Your task to perform on an android device: turn off smart reply in the gmail app Image 0: 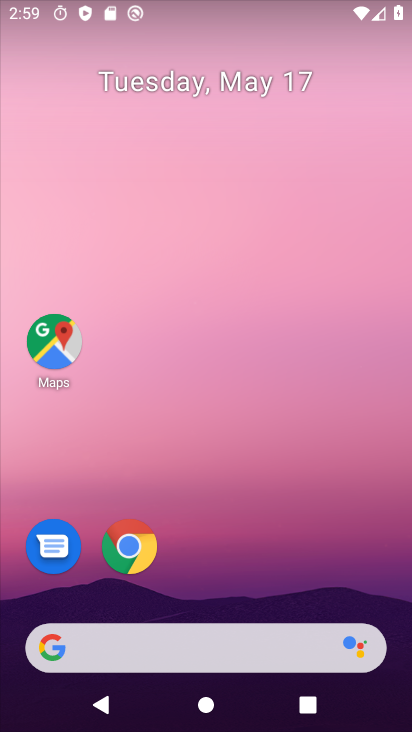
Step 0: drag from (212, 604) to (253, 101)
Your task to perform on an android device: turn off smart reply in the gmail app Image 1: 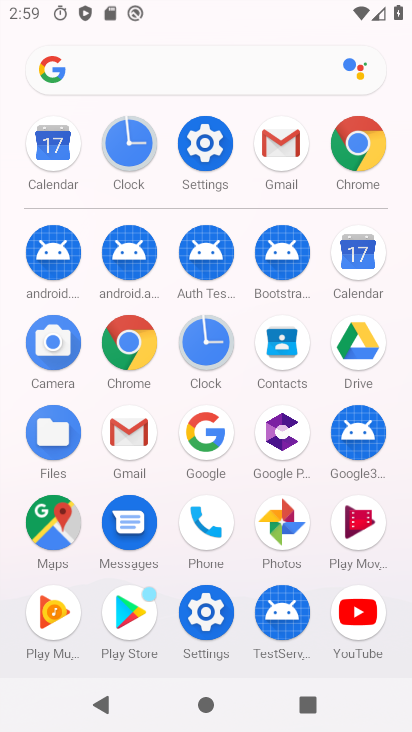
Step 1: click (120, 446)
Your task to perform on an android device: turn off smart reply in the gmail app Image 2: 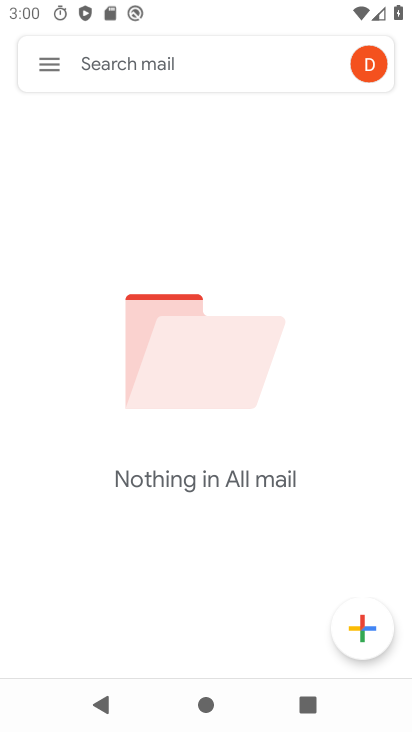
Step 2: click (39, 63)
Your task to perform on an android device: turn off smart reply in the gmail app Image 3: 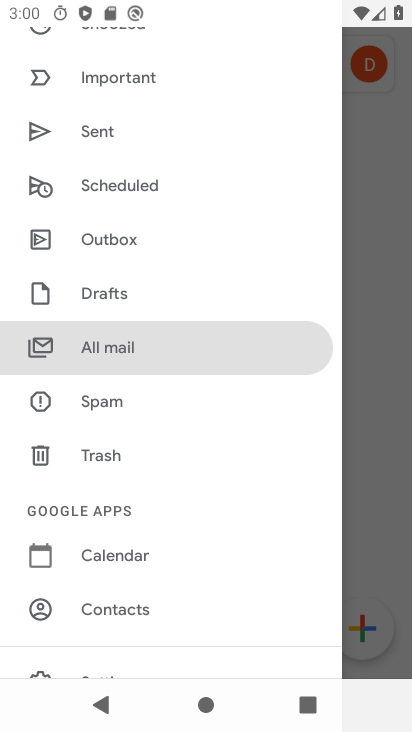
Step 3: drag from (101, 542) to (169, 251)
Your task to perform on an android device: turn off smart reply in the gmail app Image 4: 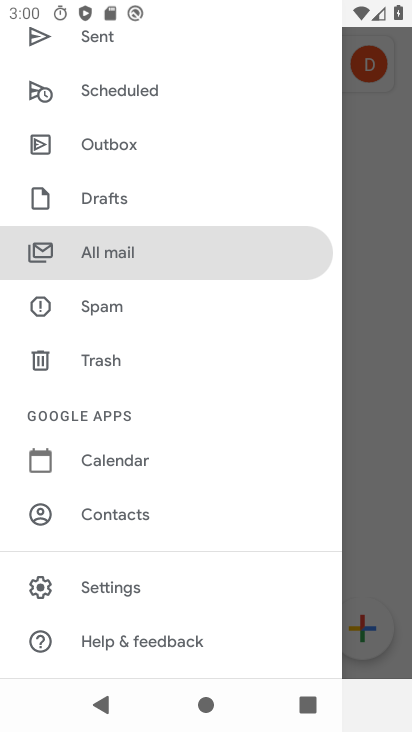
Step 4: click (122, 597)
Your task to perform on an android device: turn off smart reply in the gmail app Image 5: 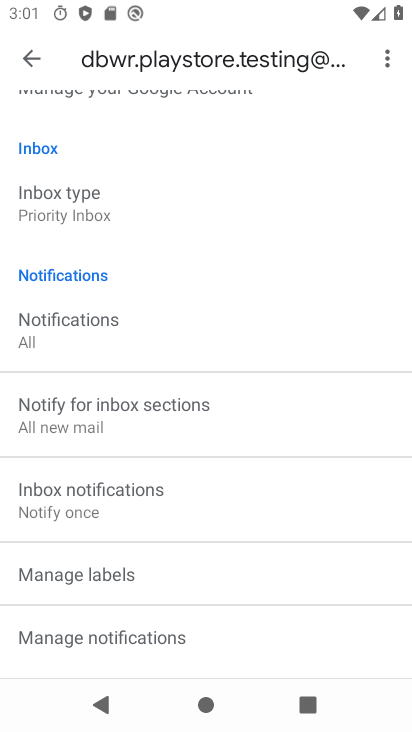
Step 5: task complete